Your task to perform on an android device: visit the assistant section in the google photos Image 0: 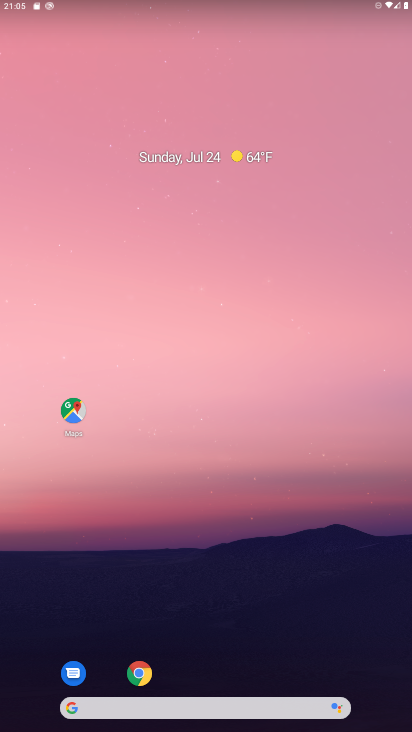
Step 0: drag from (336, 608) to (241, 119)
Your task to perform on an android device: visit the assistant section in the google photos Image 1: 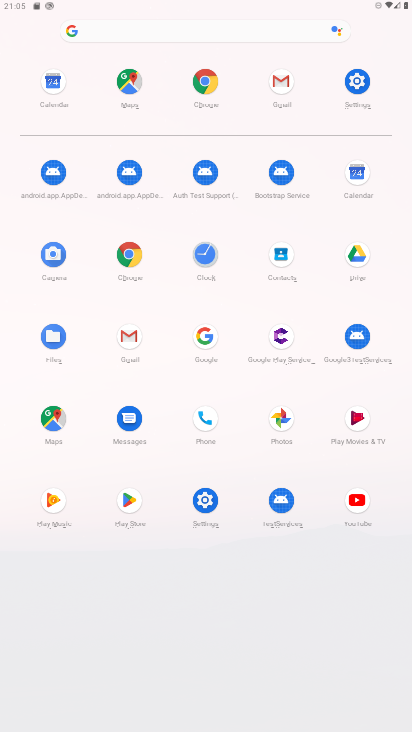
Step 1: click (278, 418)
Your task to perform on an android device: visit the assistant section in the google photos Image 2: 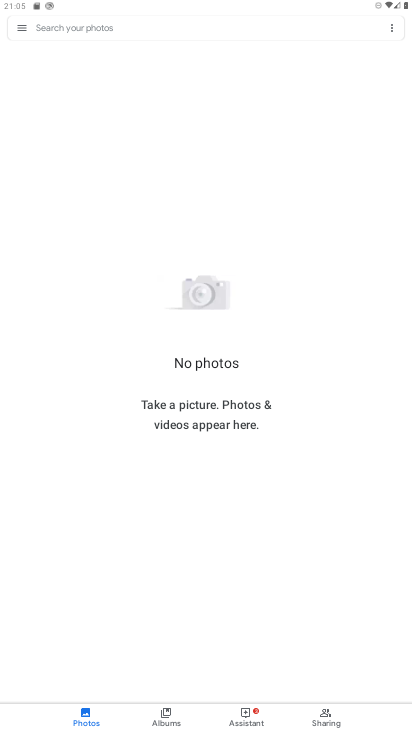
Step 2: click (251, 704)
Your task to perform on an android device: visit the assistant section in the google photos Image 3: 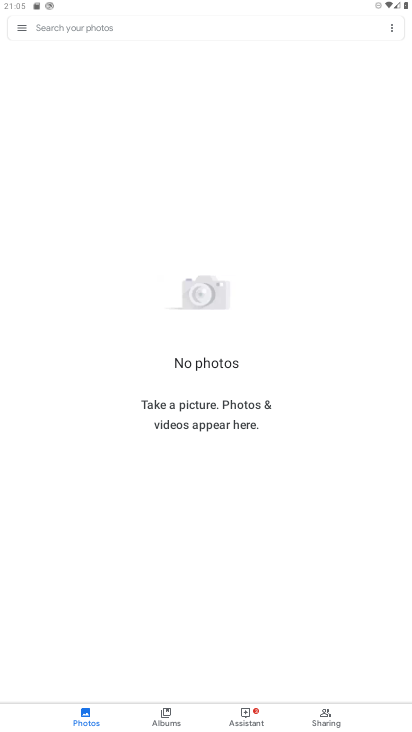
Step 3: click (251, 713)
Your task to perform on an android device: visit the assistant section in the google photos Image 4: 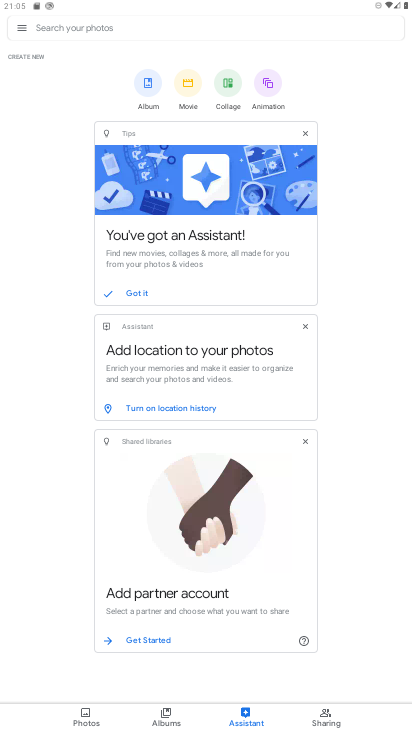
Step 4: task complete